Your task to perform on an android device: turn pop-ups on in chrome Image 0: 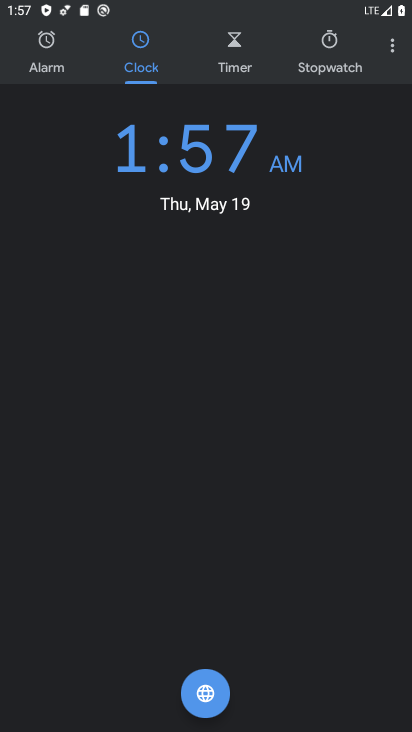
Step 0: press back button
Your task to perform on an android device: turn pop-ups on in chrome Image 1: 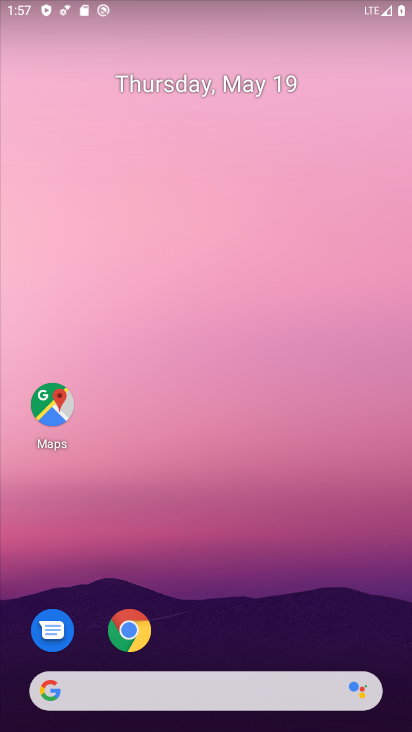
Step 1: drag from (191, 626) to (190, 33)
Your task to perform on an android device: turn pop-ups on in chrome Image 2: 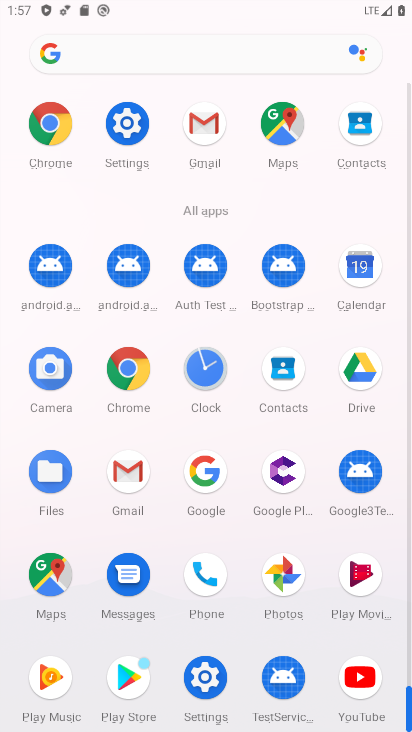
Step 2: click (125, 366)
Your task to perform on an android device: turn pop-ups on in chrome Image 3: 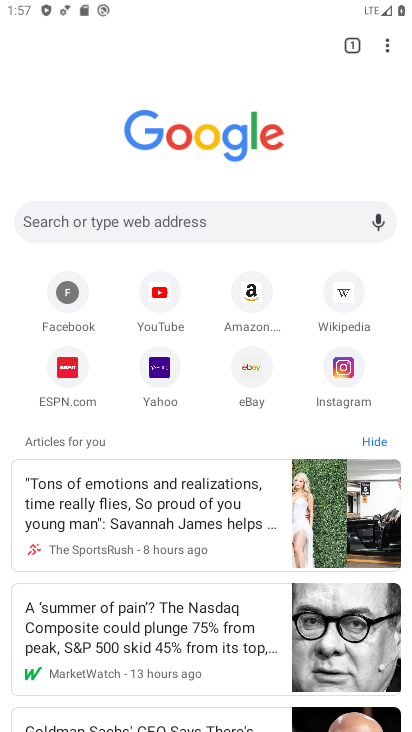
Step 3: drag from (383, 40) to (218, 439)
Your task to perform on an android device: turn pop-ups on in chrome Image 4: 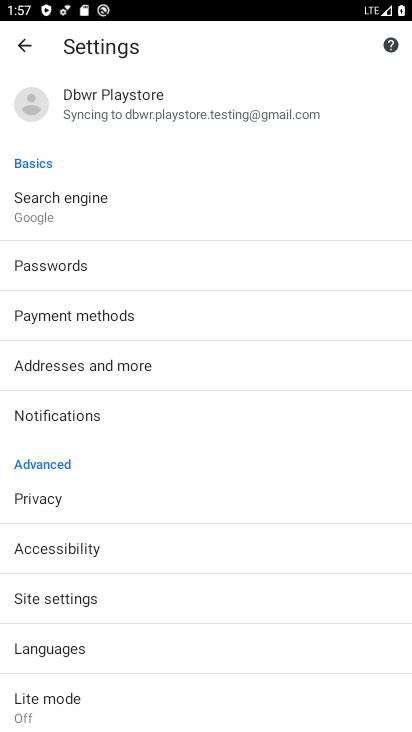
Step 4: drag from (230, 477) to (225, 169)
Your task to perform on an android device: turn pop-ups on in chrome Image 5: 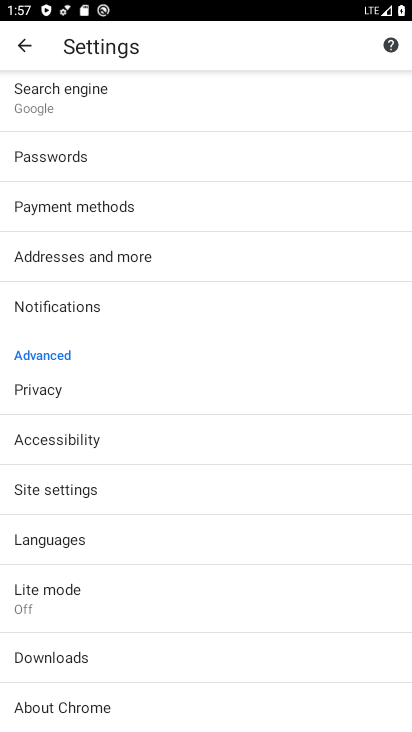
Step 5: drag from (210, 551) to (211, 244)
Your task to perform on an android device: turn pop-ups on in chrome Image 6: 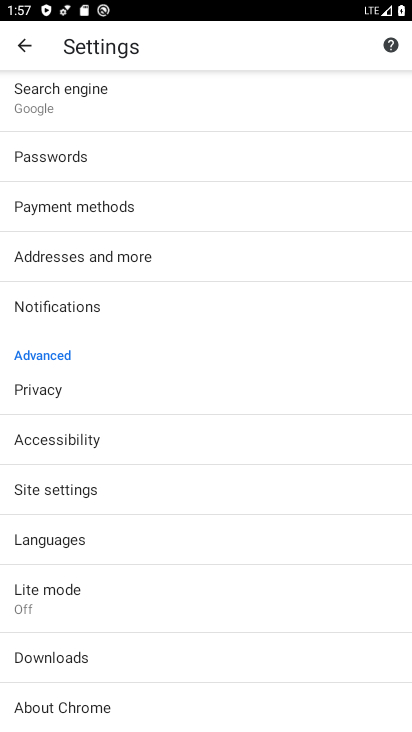
Step 6: drag from (200, 241) to (197, 609)
Your task to perform on an android device: turn pop-ups on in chrome Image 7: 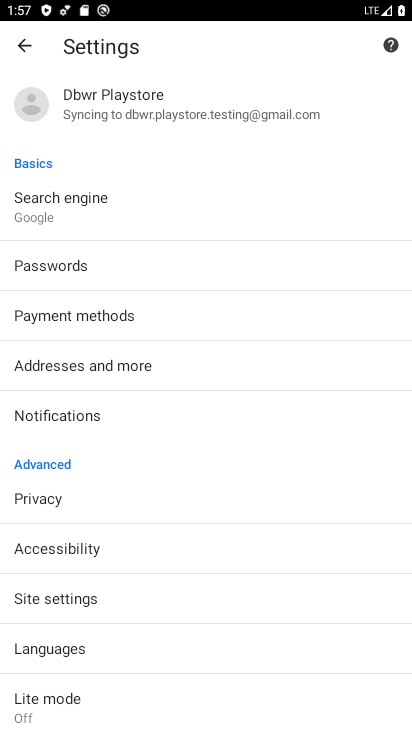
Step 7: drag from (227, 492) to (263, 191)
Your task to perform on an android device: turn pop-ups on in chrome Image 8: 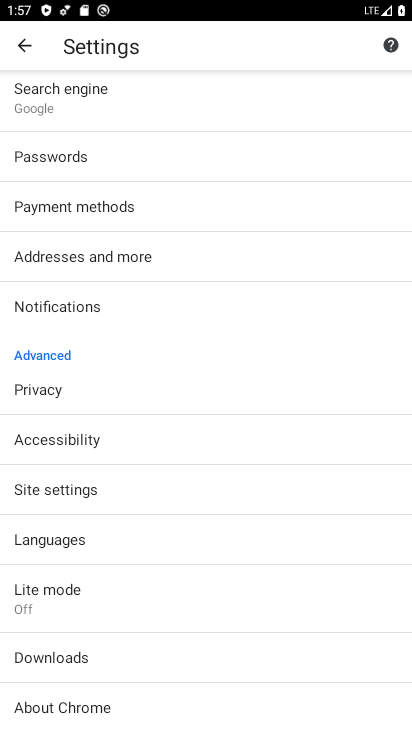
Step 8: click (98, 488)
Your task to perform on an android device: turn pop-ups on in chrome Image 9: 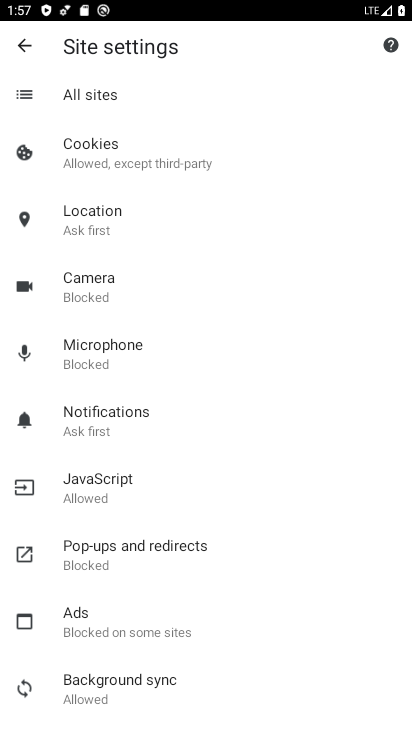
Step 9: click (152, 559)
Your task to perform on an android device: turn pop-ups on in chrome Image 10: 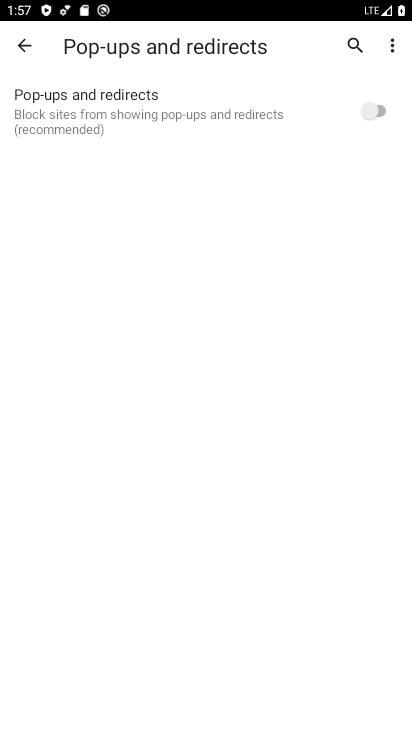
Step 10: click (368, 105)
Your task to perform on an android device: turn pop-ups on in chrome Image 11: 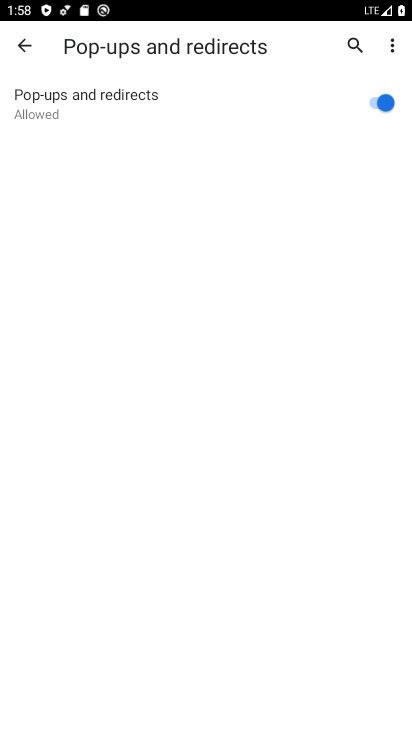
Step 11: task complete